Your task to perform on an android device: open app "Booking.com: Hotels and more" (install if not already installed) Image 0: 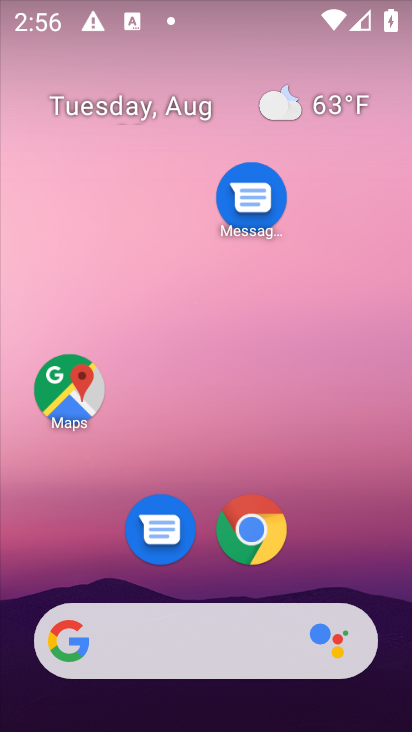
Step 0: drag from (350, 554) to (249, 5)
Your task to perform on an android device: open app "Booking.com: Hotels and more" (install if not already installed) Image 1: 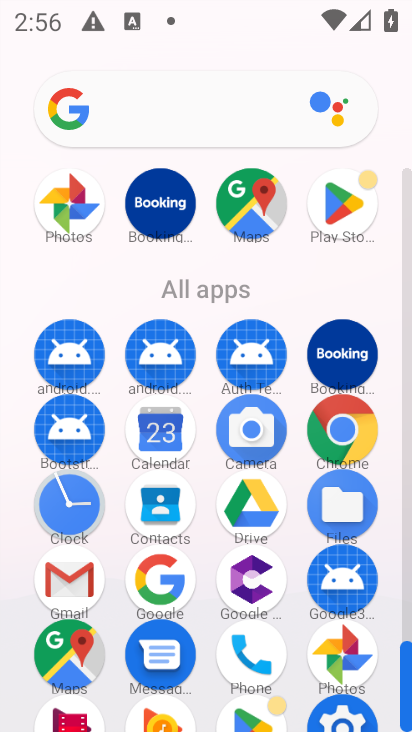
Step 1: click (354, 199)
Your task to perform on an android device: open app "Booking.com: Hotels and more" (install if not already installed) Image 2: 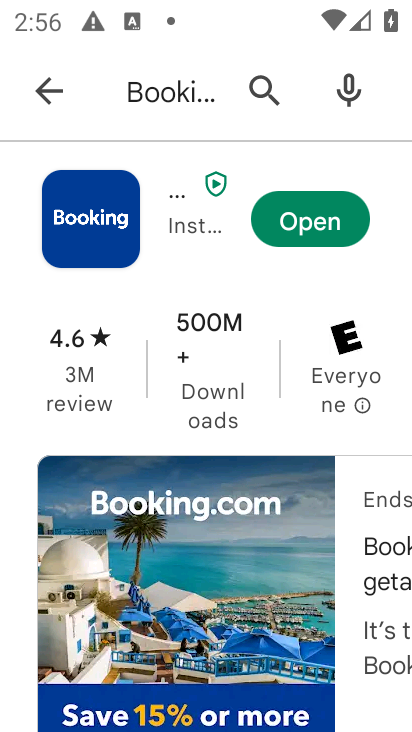
Step 2: click (298, 213)
Your task to perform on an android device: open app "Booking.com: Hotels and more" (install if not already installed) Image 3: 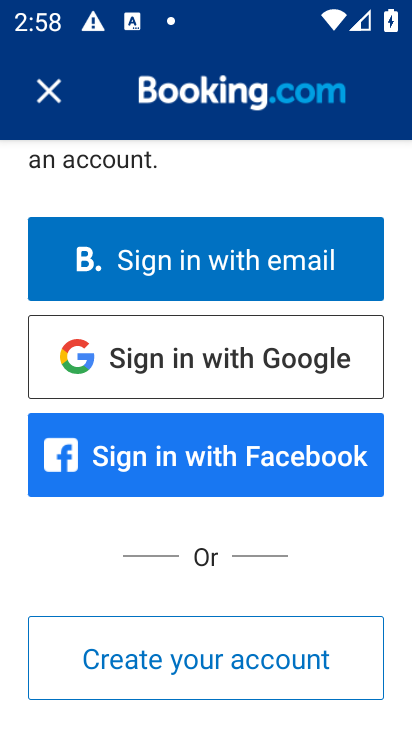
Step 3: task complete